Your task to perform on an android device: refresh tabs in the chrome app Image 0: 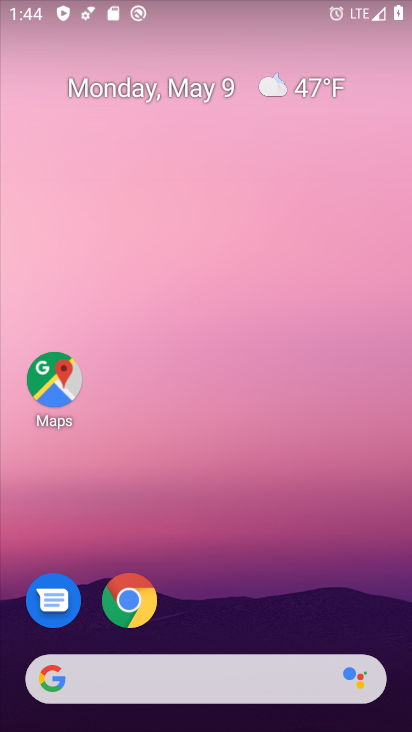
Step 0: click (131, 603)
Your task to perform on an android device: refresh tabs in the chrome app Image 1: 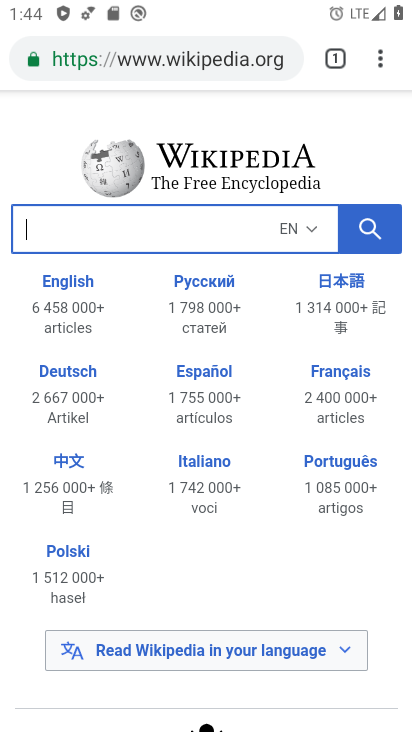
Step 1: click (378, 55)
Your task to perform on an android device: refresh tabs in the chrome app Image 2: 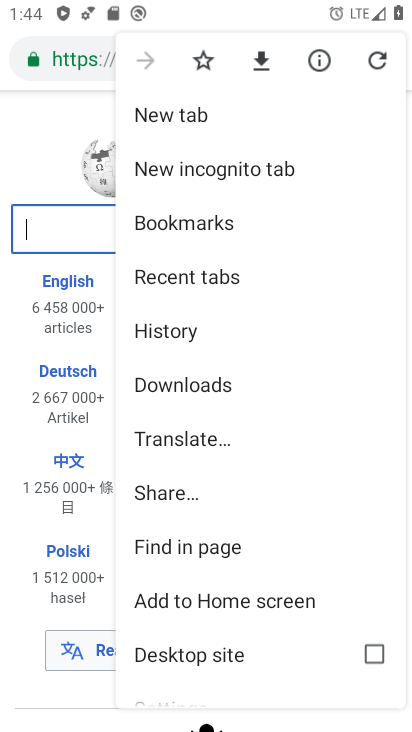
Step 2: click (378, 58)
Your task to perform on an android device: refresh tabs in the chrome app Image 3: 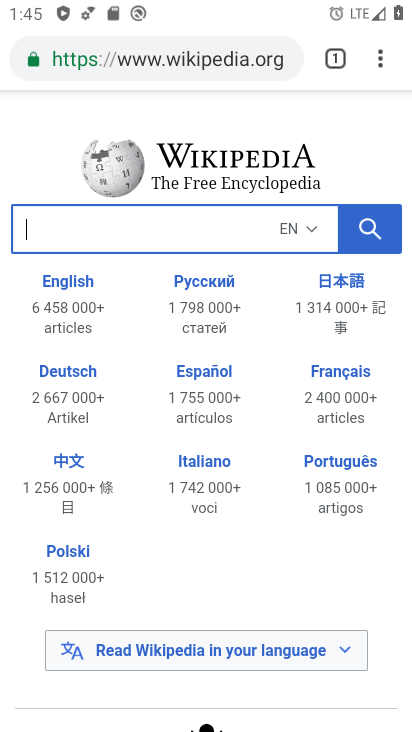
Step 3: task complete